Your task to perform on an android device: Go to Android settings Image 0: 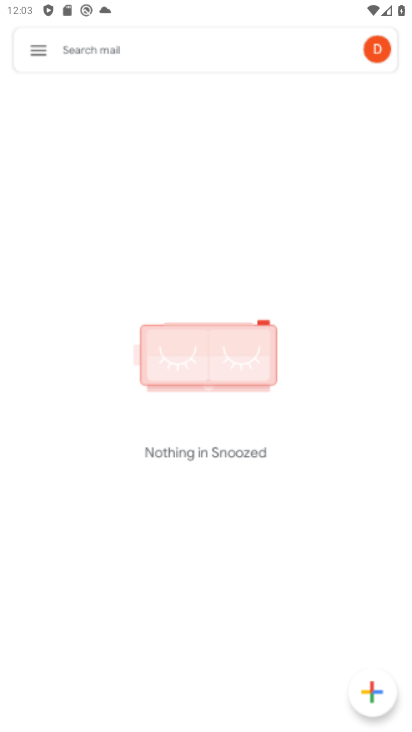
Step 0: drag from (245, 491) to (245, 101)
Your task to perform on an android device: Go to Android settings Image 1: 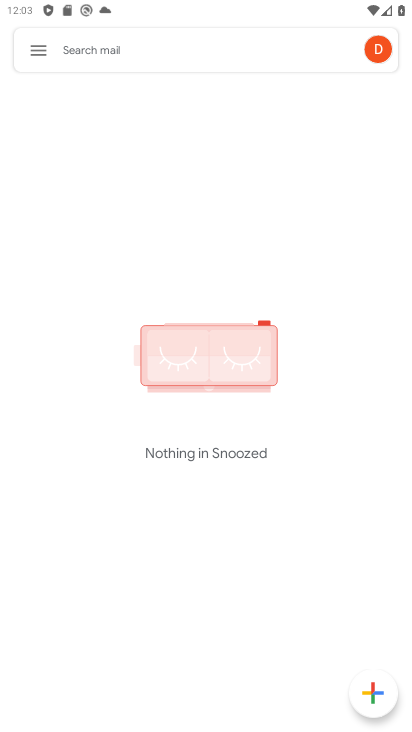
Step 1: press home button
Your task to perform on an android device: Go to Android settings Image 2: 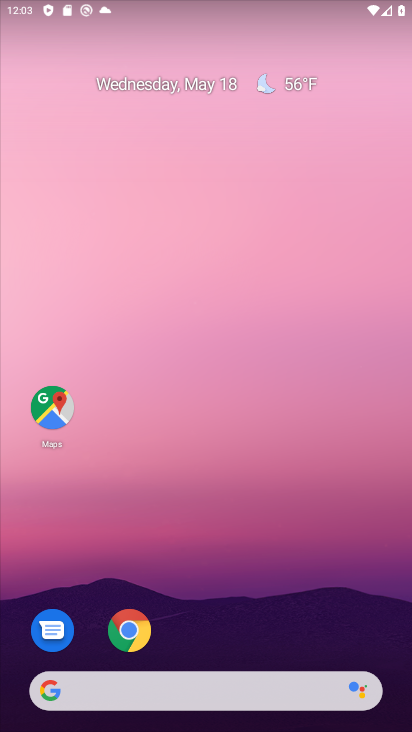
Step 2: drag from (320, 564) to (259, 172)
Your task to perform on an android device: Go to Android settings Image 3: 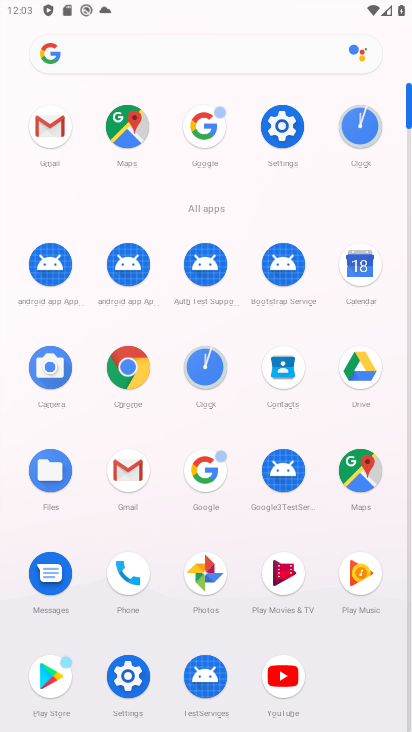
Step 3: click (274, 128)
Your task to perform on an android device: Go to Android settings Image 4: 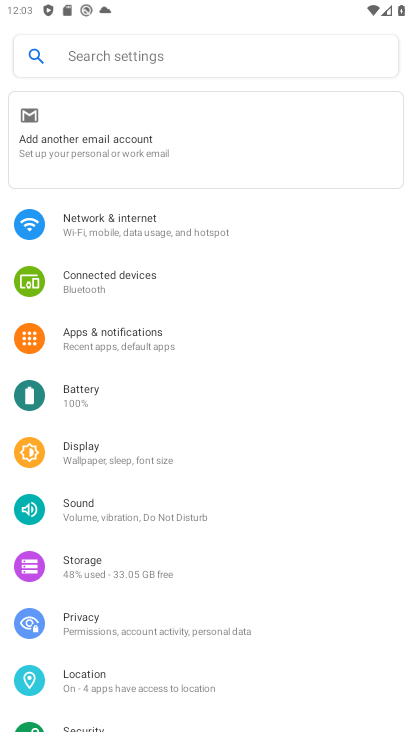
Step 4: task complete